Your task to perform on an android device: Open eBay Image 0: 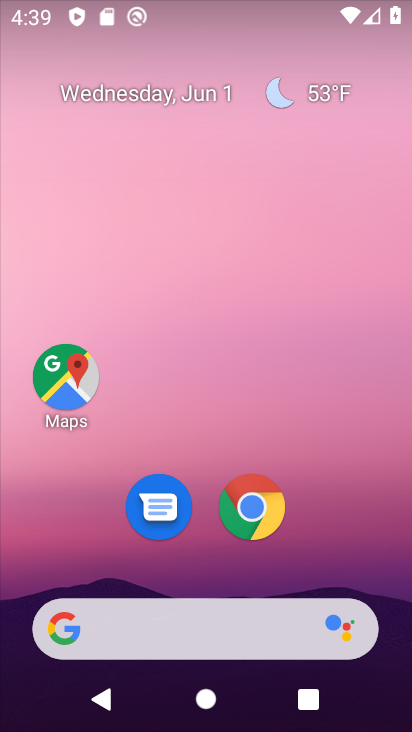
Step 0: drag from (364, 318) to (327, 73)
Your task to perform on an android device: Open eBay Image 1: 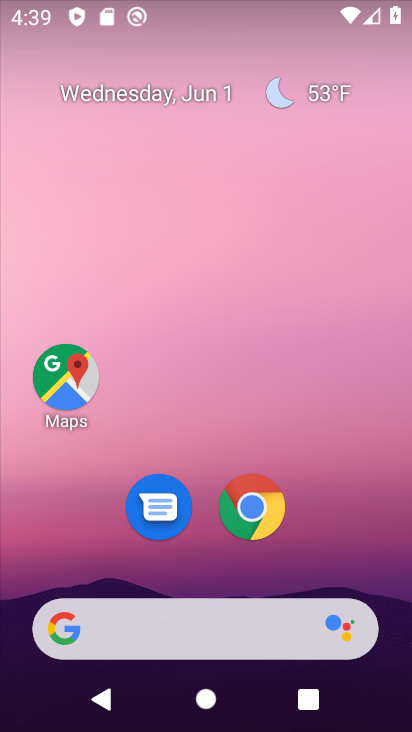
Step 1: drag from (333, 548) to (238, 11)
Your task to perform on an android device: Open eBay Image 2: 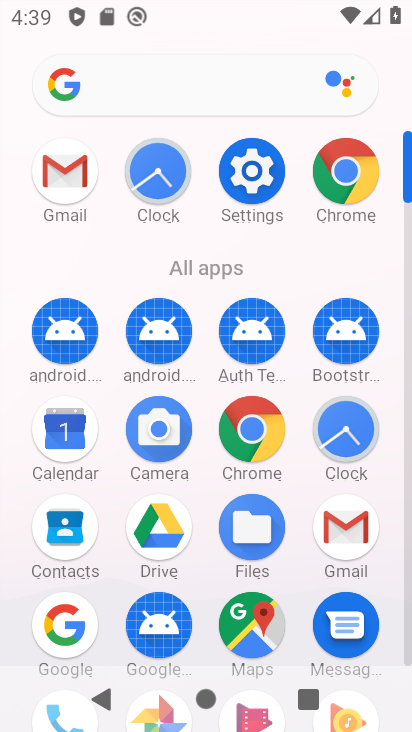
Step 2: click (333, 169)
Your task to perform on an android device: Open eBay Image 3: 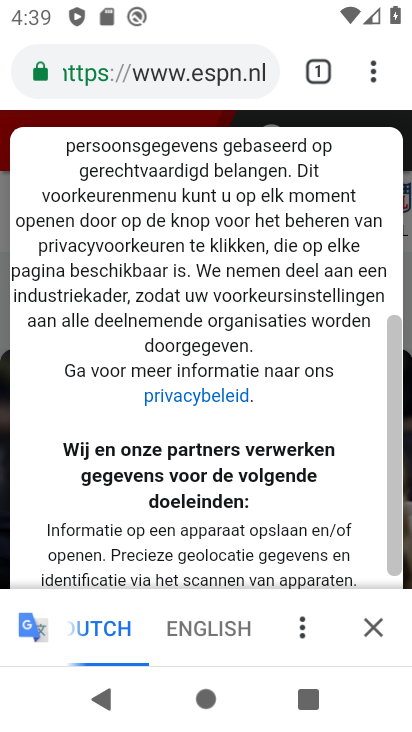
Step 3: click (200, 83)
Your task to perform on an android device: Open eBay Image 4: 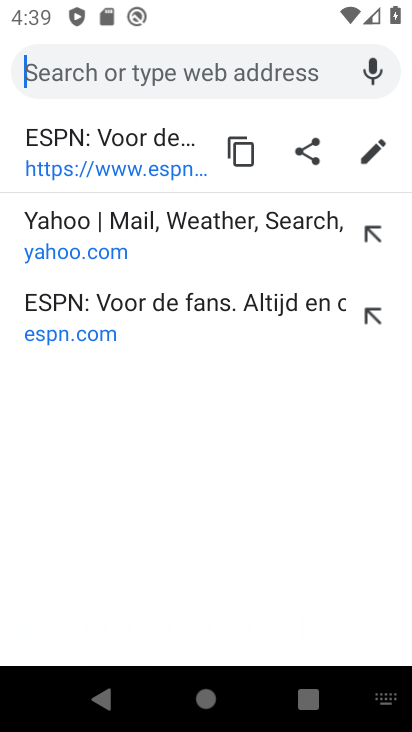
Step 4: type "ebay"
Your task to perform on an android device: Open eBay Image 5: 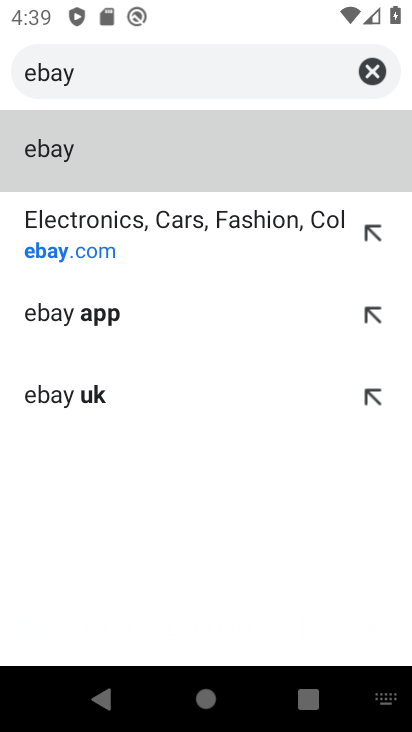
Step 5: click (121, 232)
Your task to perform on an android device: Open eBay Image 6: 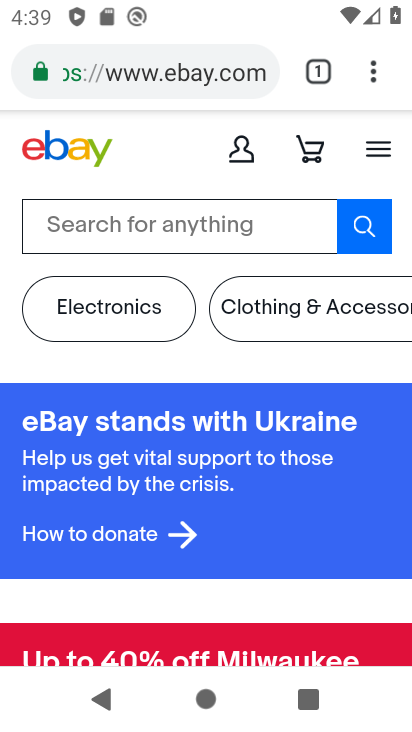
Step 6: task complete